Your task to perform on an android device: Open the calendar and show me this week's events? Image 0: 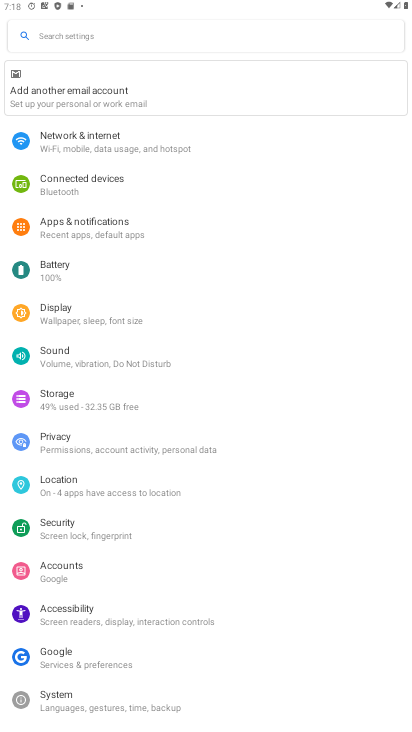
Step 0: press home button
Your task to perform on an android device: Open the calendar and show me this week's events? Image 1: 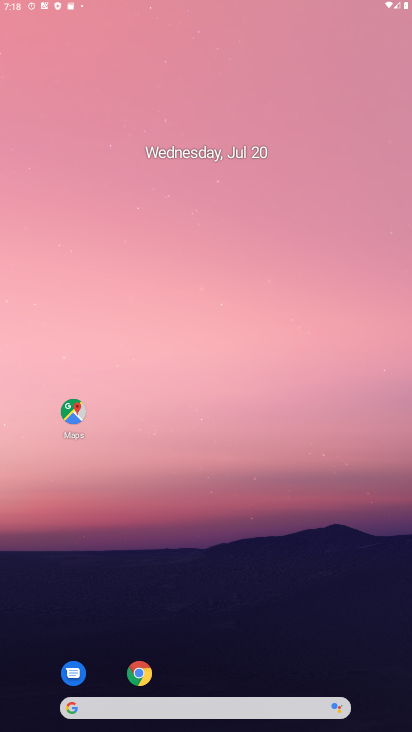
Step 1: drag from (397, 697) to (222, 34)
Your task to perform on an android device: Open the calendar and show me this week's events? Image 2: 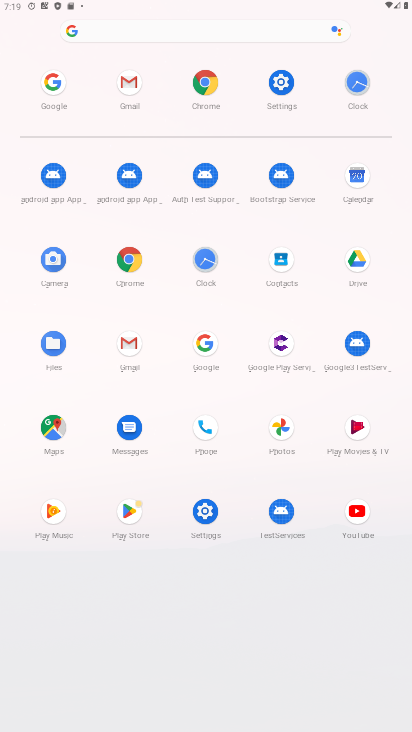
Step 2: click (359, 182)
Your task to perform on an android device: Open the calendar and show me this week's events? Image 3: 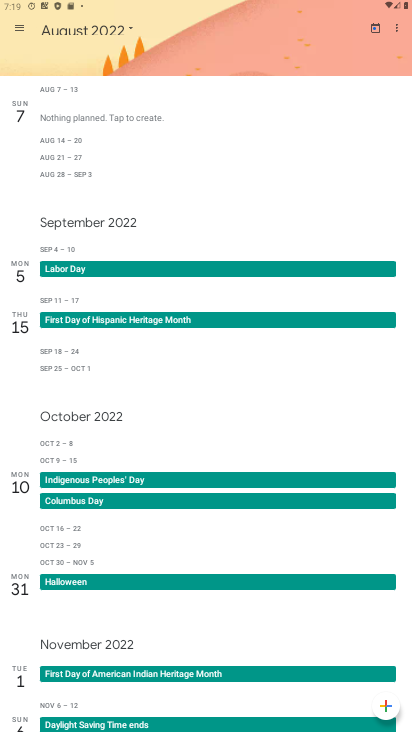
Step 3: task complete